Your task to perform on an android device: Go to internet settings Image 0: 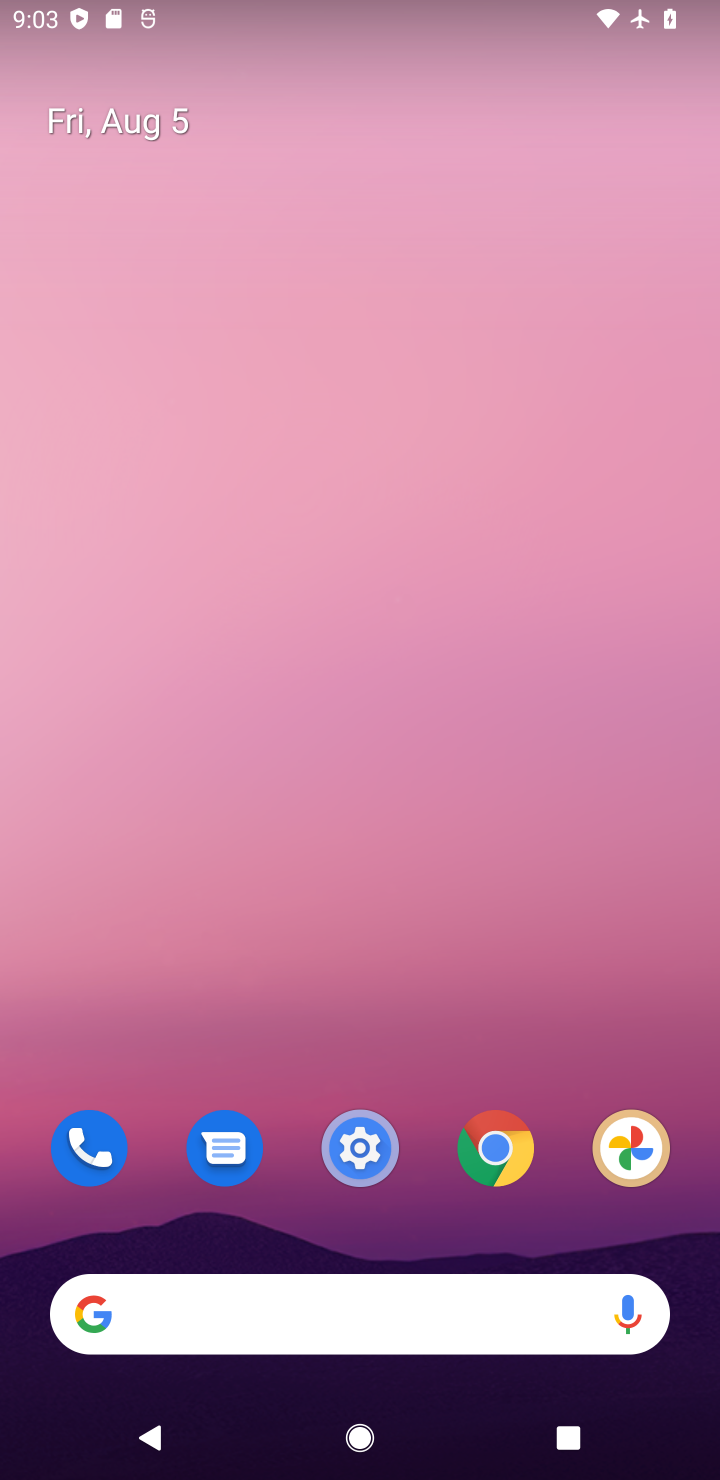
Step 0: click (358, 1170)
Your task to perform on an android device: Go to internet settings Image 1: 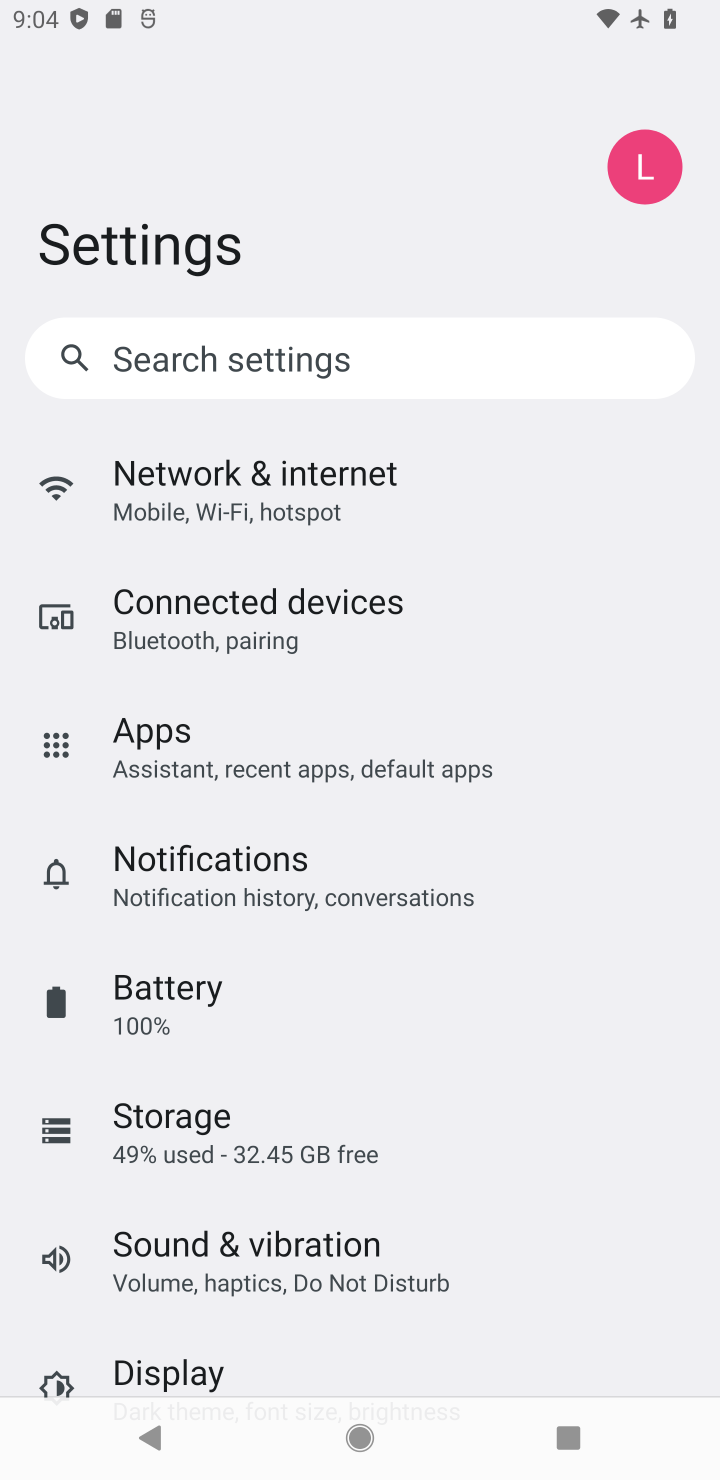
Step 1: click (191, 535)
Your task to perform on an android device: Go to internet settings Image 2: 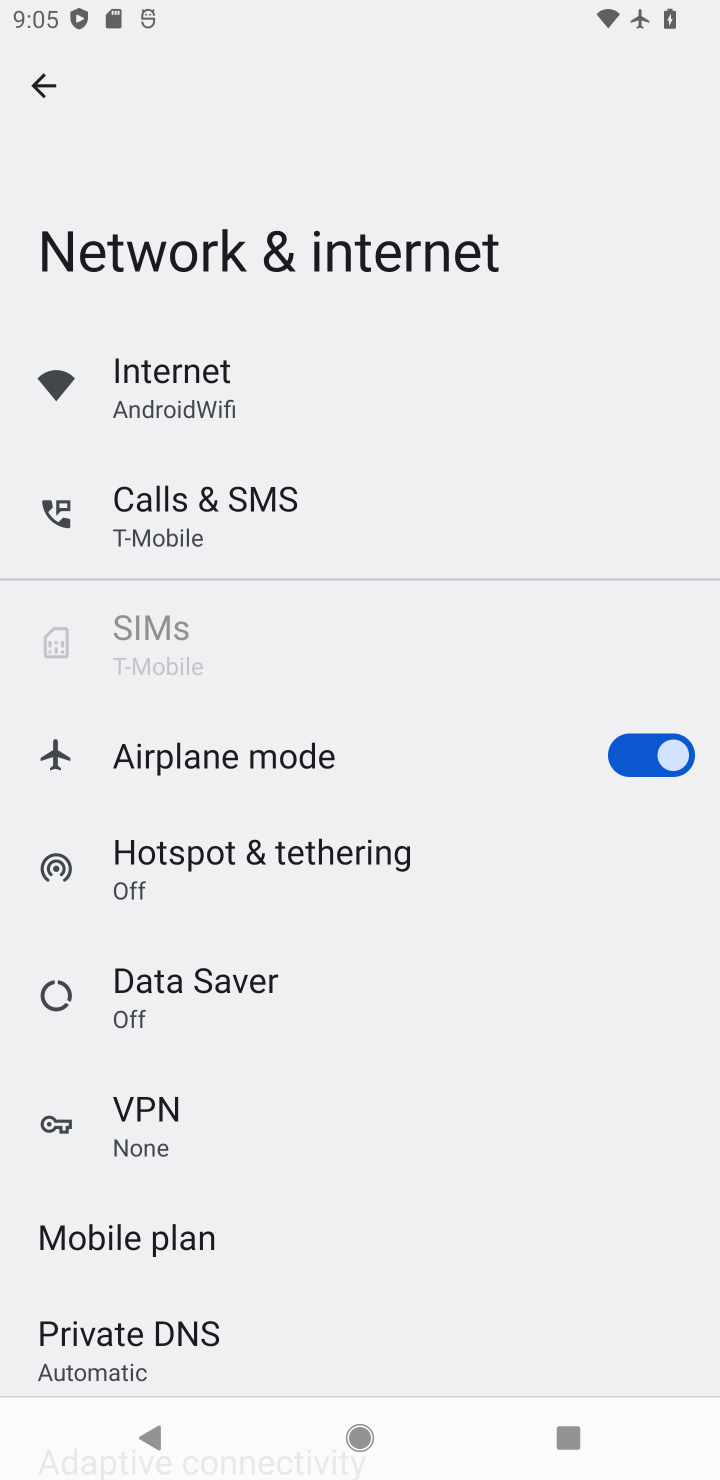
Step 2: task complete